Your task to perform on an android device: turn on javascript in the chrome app Image 0: 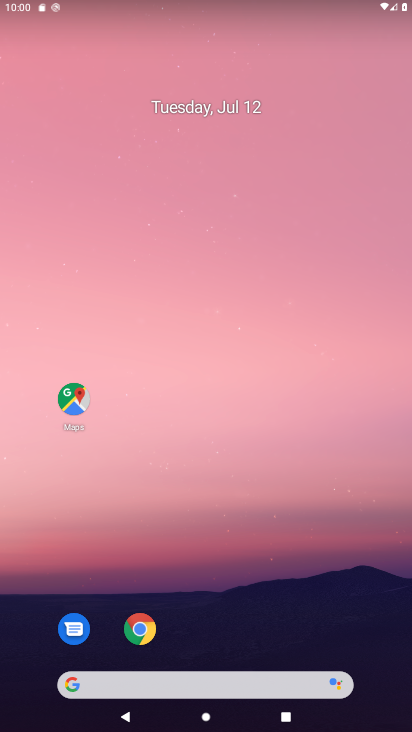
Step 0: press home button
Your task to perform on an android device: turn on javascript in the chrome app Image 1: 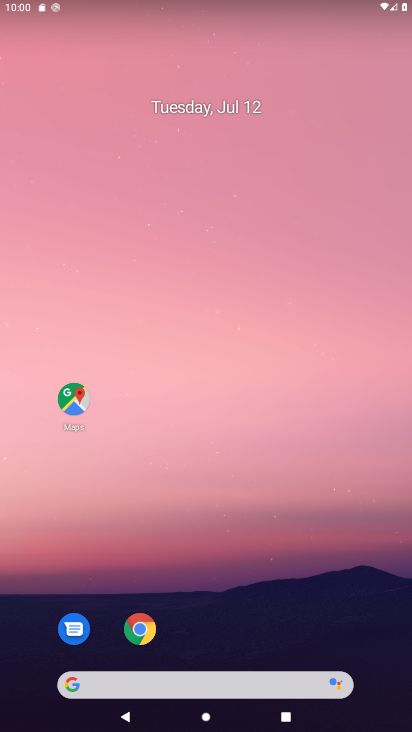
Step 1: press home button
Your task to perform on an android device: turn on javascript in the chrome app Image 2: 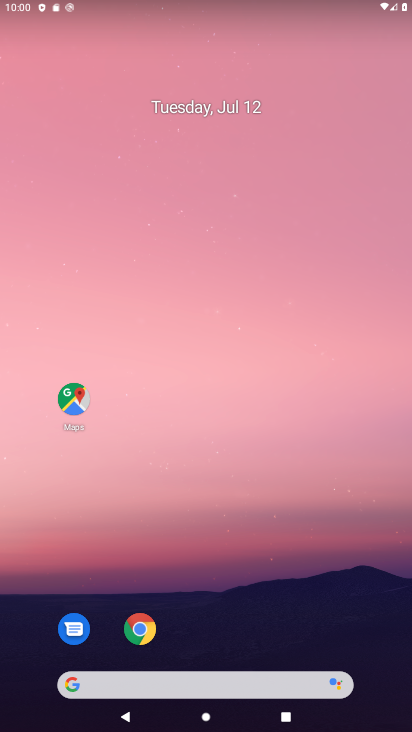
Step 2: click (137, 637)
Your task to perform on an android device: turn on javascript in the chrome app Image 3: 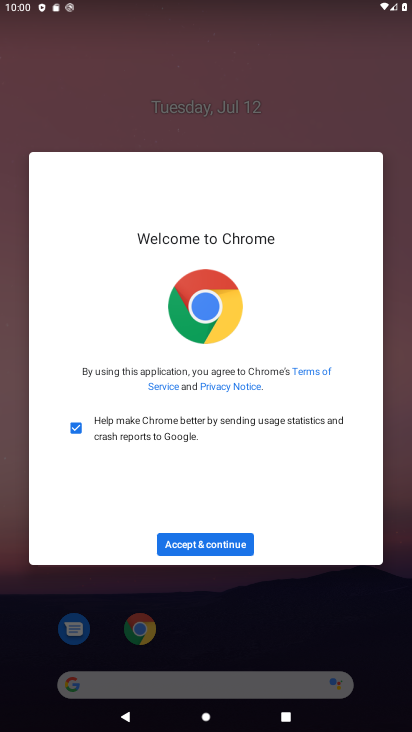
Step 3: click (204, 547)
Your task to perform on an android device: turn on javascript in the chrome app Image 4: 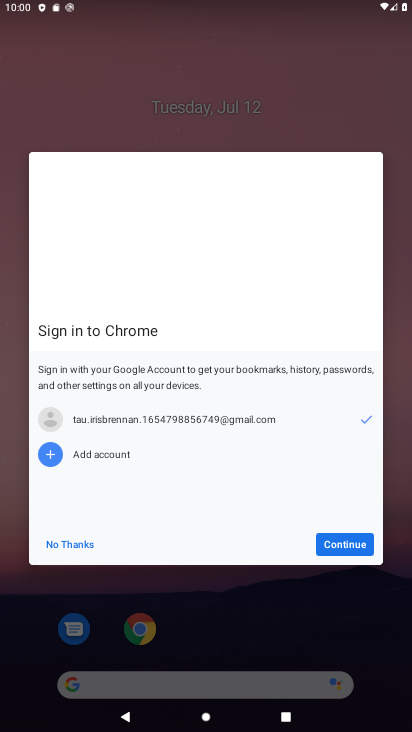
Step 4: click (363, 544)
Your task to perform on an android device: turn on javascript in the chrome app Image 5: 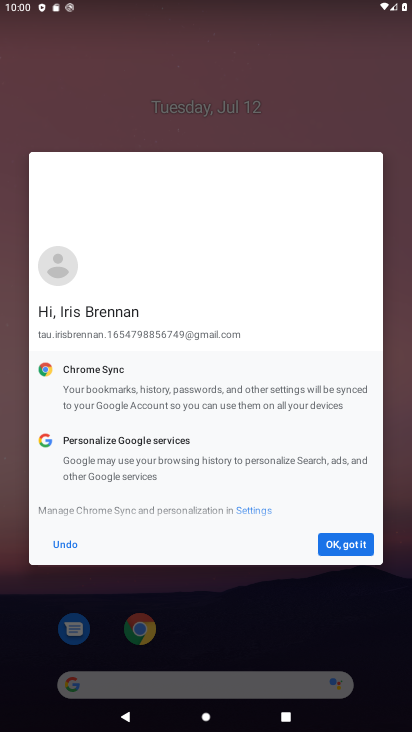
Step 5: click (363, 544)
Your task to perform on an android device: turn on javascript in the chrome app Image 6: 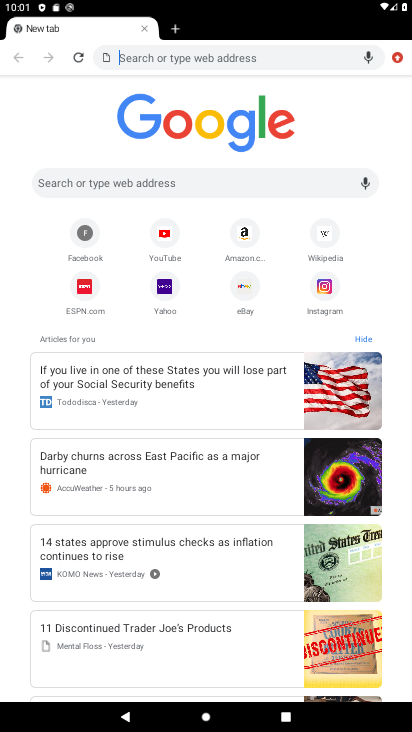
Step 6: click (399, 55)
Your task to perform on an android device: turn on javascript in the chrome app Image 7: 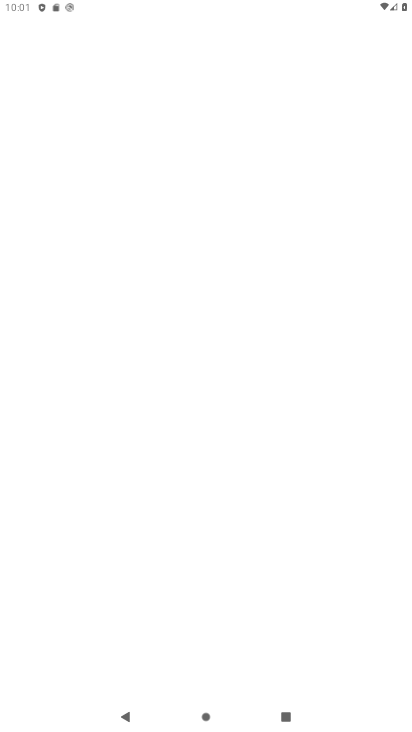
Step 7: press home button
Your task to perform on an android device: turn on javascript in the chrome app Image 8: 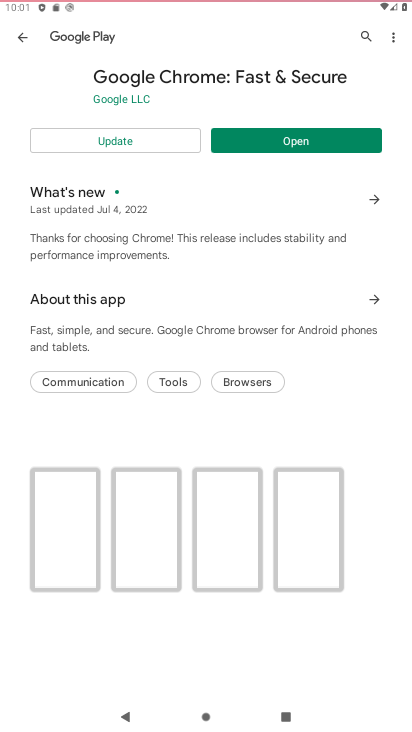
Step 8: drag from (209, 245) to (222, 162)
Your task to perform on an android device: turn on javascript in the chrome app Image 9: 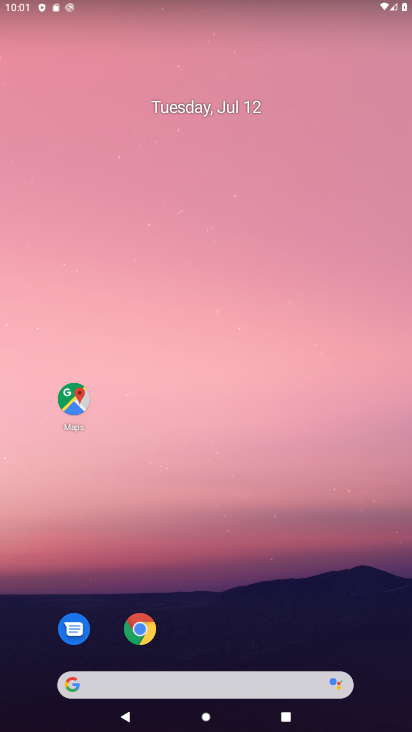
Step 9: drag from (316, 615) to (325, 120)
Your task to perform on an android device: turn on javascript in the chrome app Image 10: 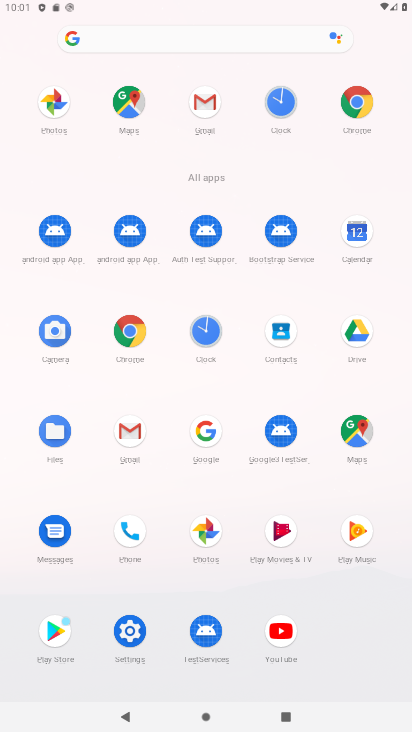
Step 10: click (130, 346)
Your task to perform on an android device: turn on javascript in the chrome app Image 11: 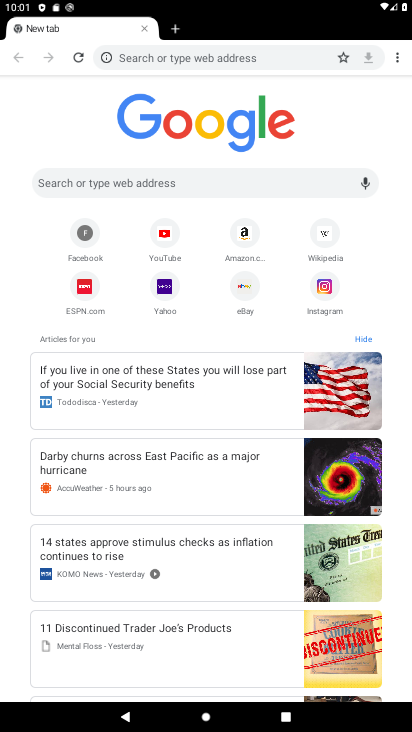
Step 11: drag from (399, 54) to (263, 289)
Your task to perform on an android device: turn on javascript in the chrome app Image 12: 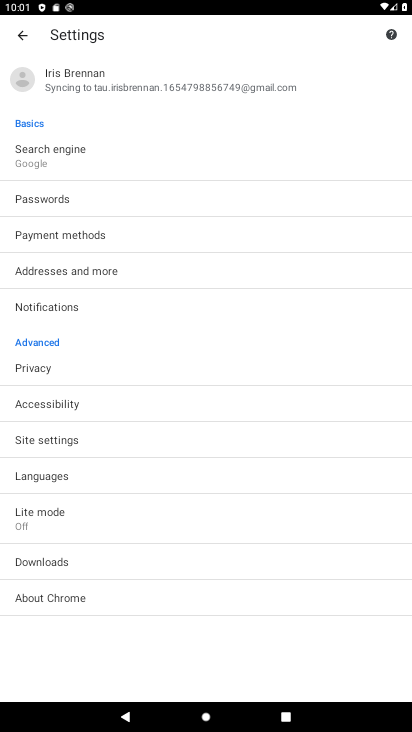
Step 12: click (52, 441)
Your task to perform on an android device: turn on javascript in the chrome app Image 13: 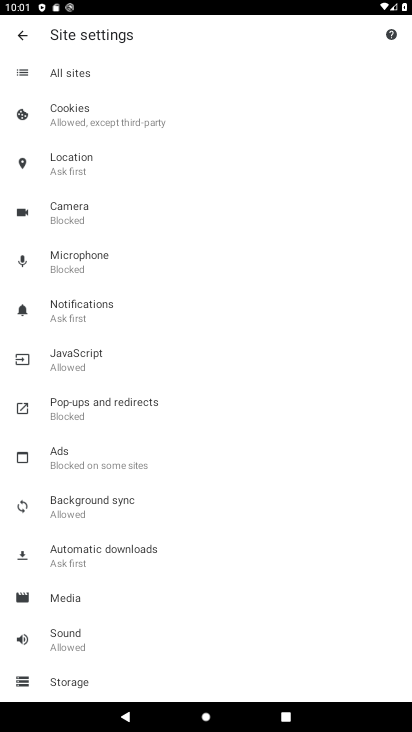
Step 13: click (64, 361)
Your task to perform on an android device: turn on javascript in the chrome app Image 14: 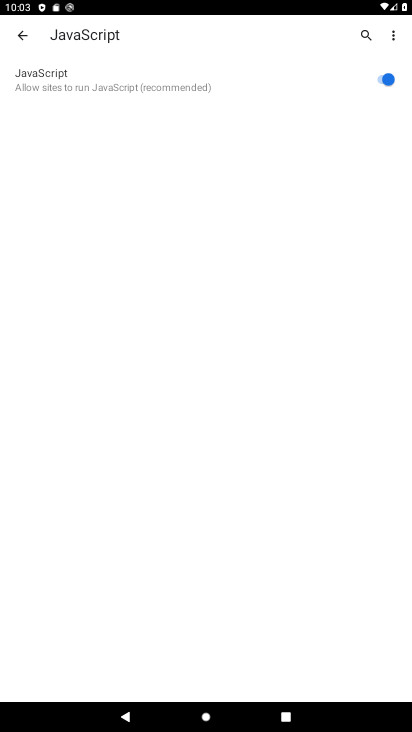
Step 14: task complete